Your task to perform on an android device: find which apps use the phone's location Image 0: 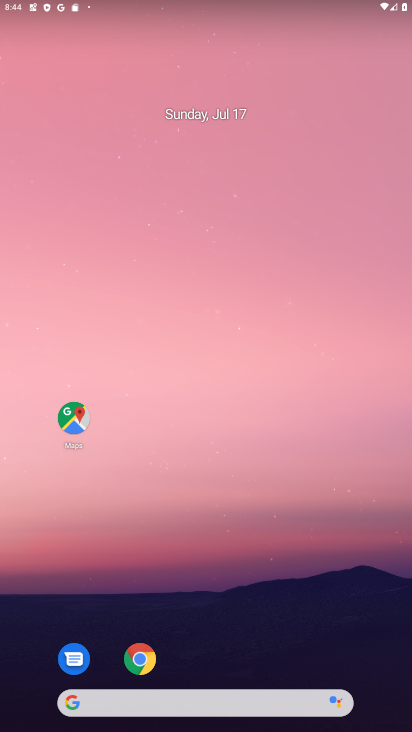
Step 0: drag from (229, 633) to (226, 253)
Your task to perform on an android device: find which apps use the phone's location Image 1: 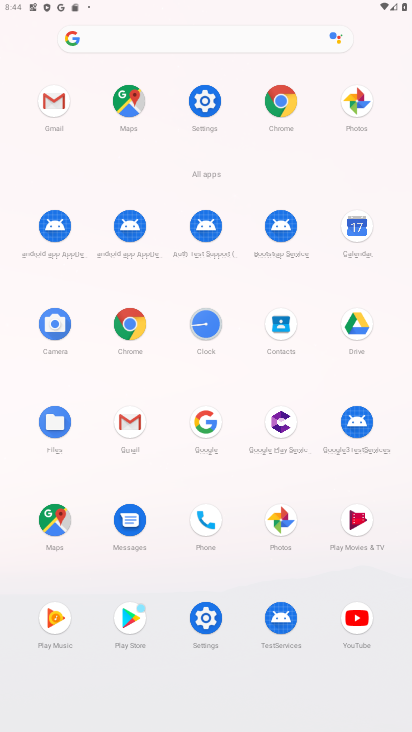
Step 1: click (199, 612)
Your task to perform on an android device: find which apps use the phone's location Image 2: 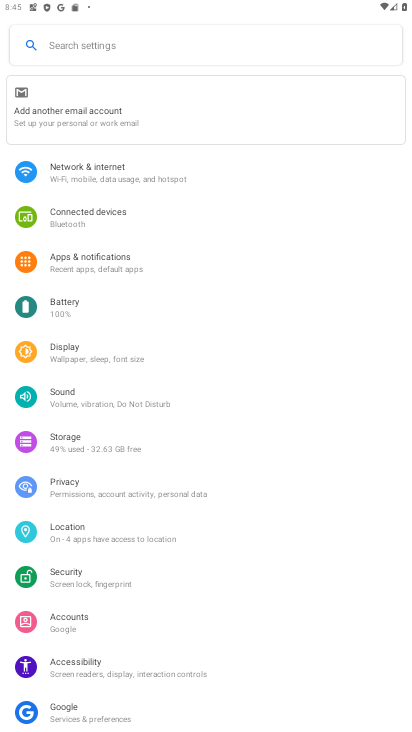
Step 2: click (77, 535)
Your task to perform on an android device: find which apps use the phone's location Image 3: 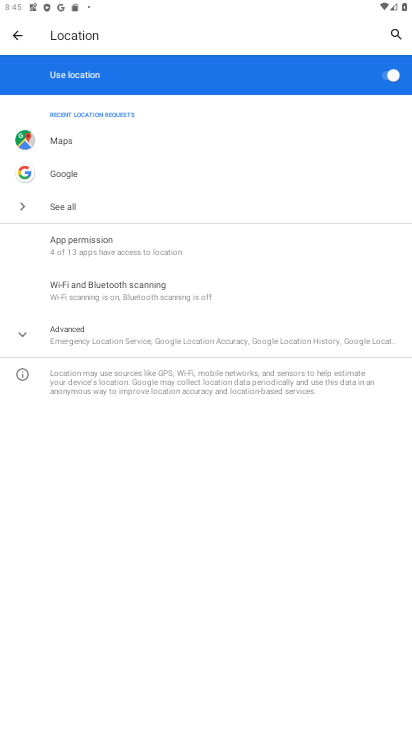
Step 3: task complete